Your task to perform on an android device: turn off priority inbox in the gmail app Image 0: 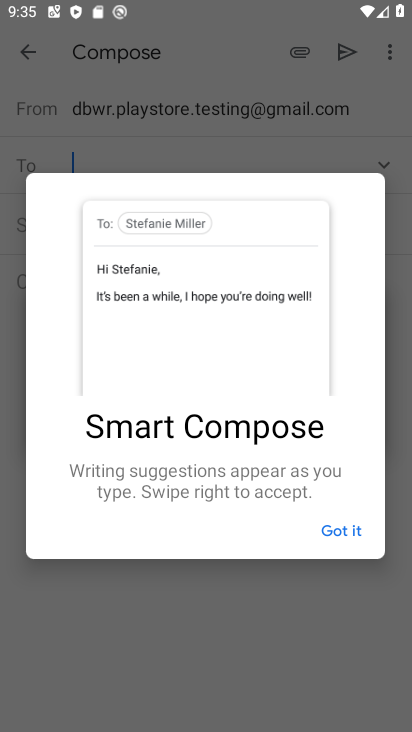
Step 0: press home button
Your task to perform on an android device: turn off priority inbox in the gmail app Image 1: 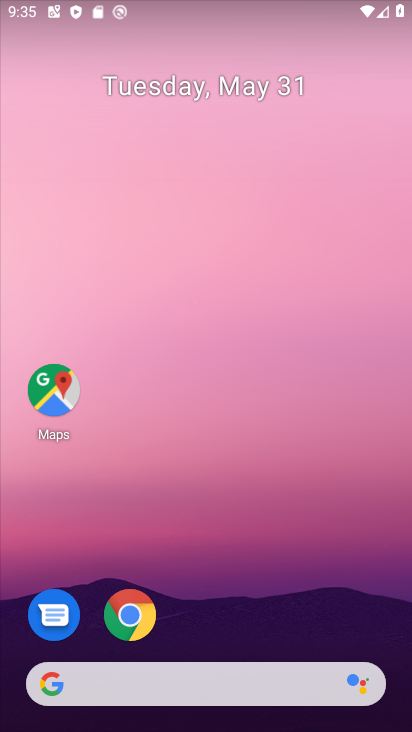
Step 1: drag from (272, 615) to (317, 51)
Your task to perform on an android device: turn off priority inbox in the gmail app Image 2: 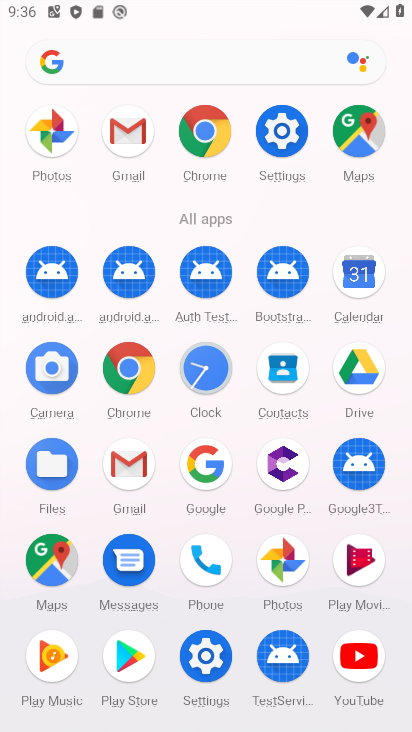
Step 2: click (132, 456)
Your task to perform on an android device: turn off priority inbox in the gmail app Image 3: 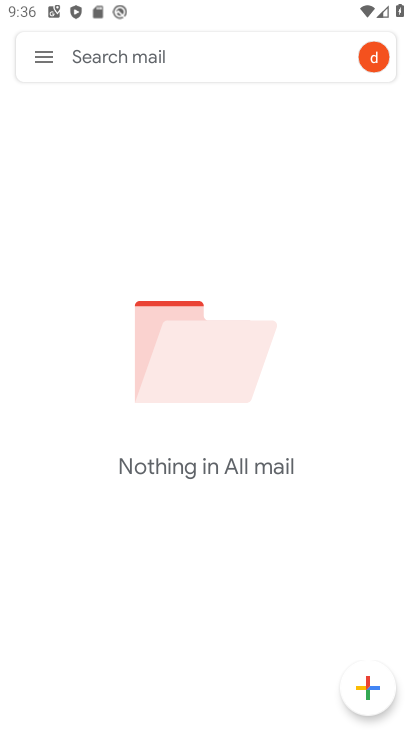
Step 3: click (51, 50)
Your task to perform on an android device: turn off priority inbox in the gmail app Image 4: 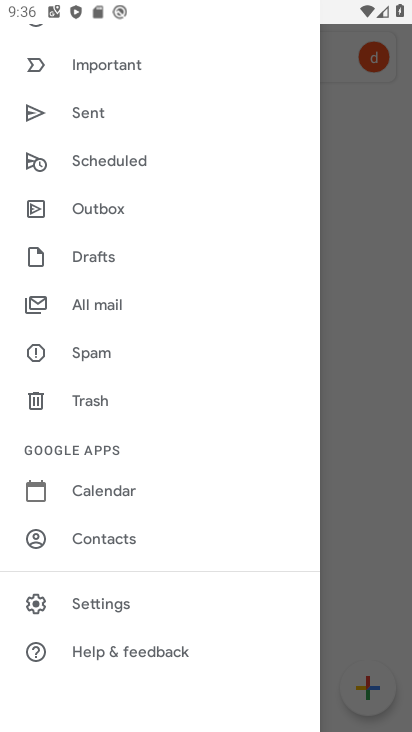
Step 4: click (123, 602)
Your task to perform on an android device: turn off priority inbox in the gmail app Image 5: 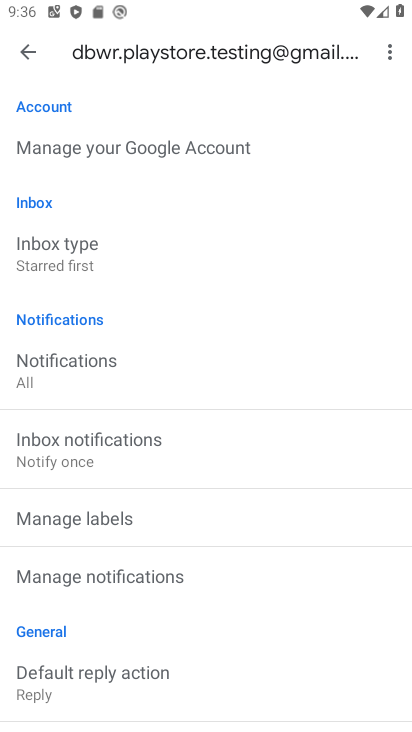
Step 5: click (47, 258)
Your task to perform on an android device: turn off priority inbox in the gmail app Image 6: 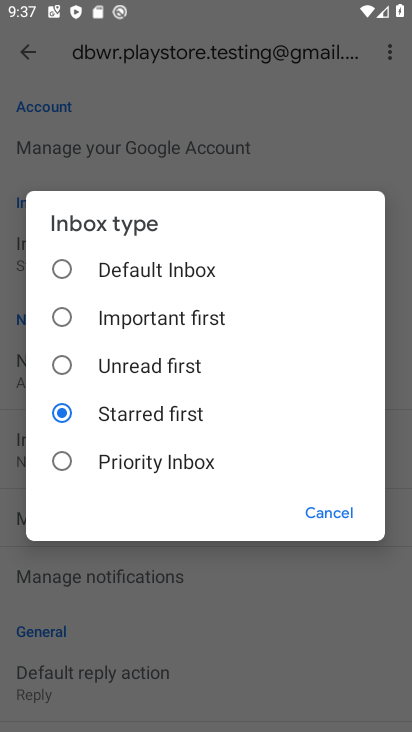
Step 6: click (93, 411)
Your task to perform on an android device: turn off priority inbox in the gmail app Image 7: 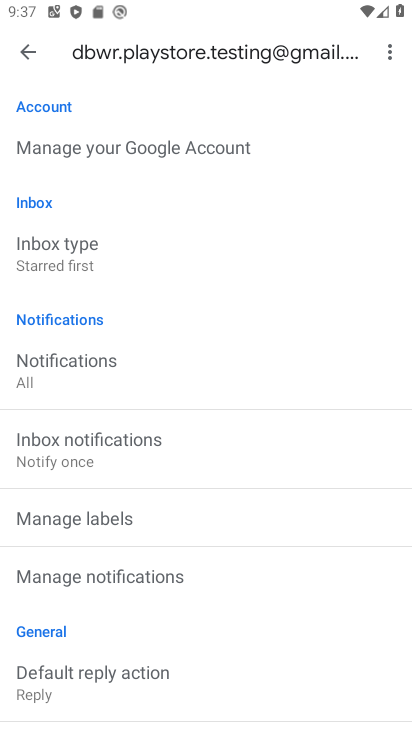
Step 7: task complete